Your task to perform on an android device: Find coffee shops on Maps Image 0: 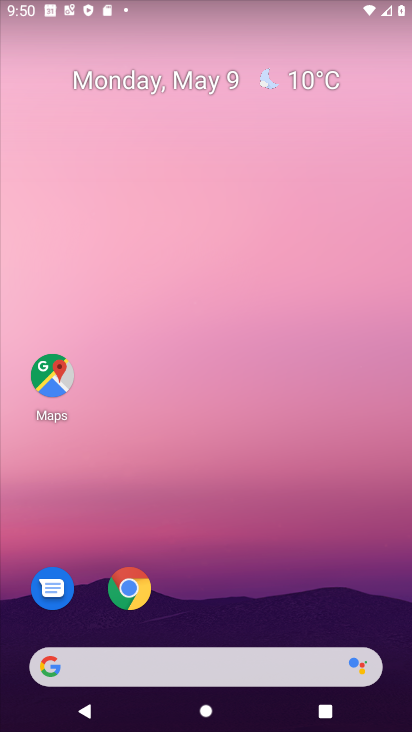
Step 0: press home button
Your task to perform on an android device: Find coffee shops on Maps Image 1: 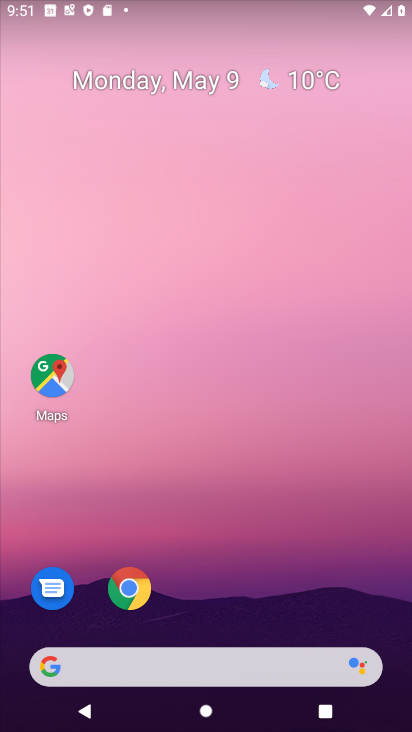
Step 1: drag from (195, 678) to (335, 153)
Your task to perform on an android device: Find coffee shops on Maps Image 2: 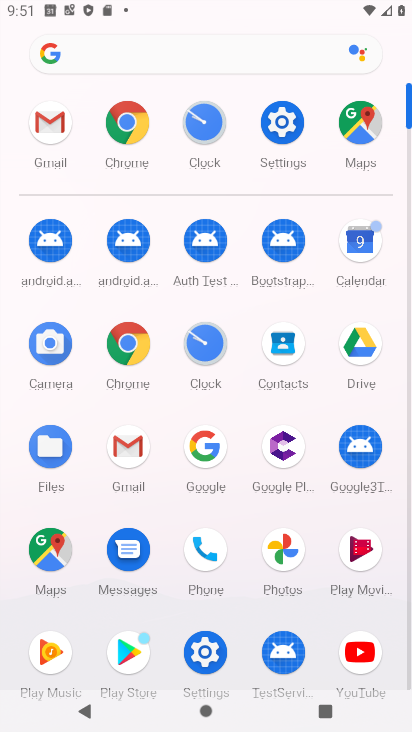
Step 2: click (369, 136)
Your task to perform on an android device: Find coffee shops on Maps Image 3: 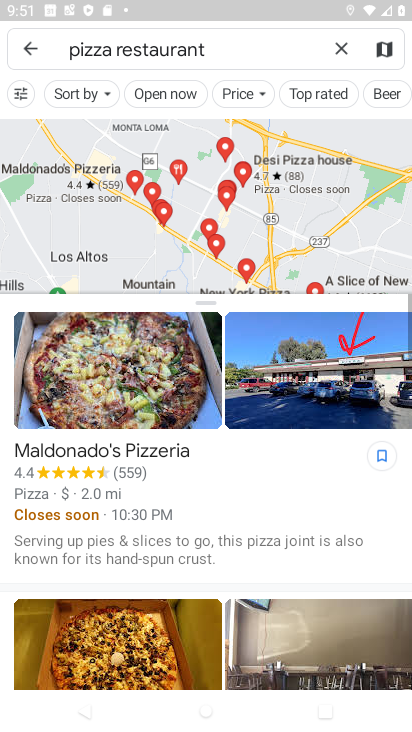
Step 3: click (337, 45)
Your task to perform on an android device: Find coffee shops on Maps Image 4: 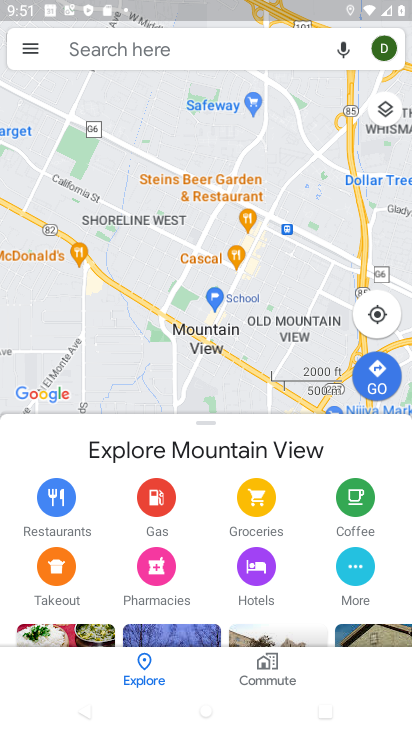
Step 4: click (245, 47)
Your task to perform on an android device: Find coffee shops on Maps Image 5: 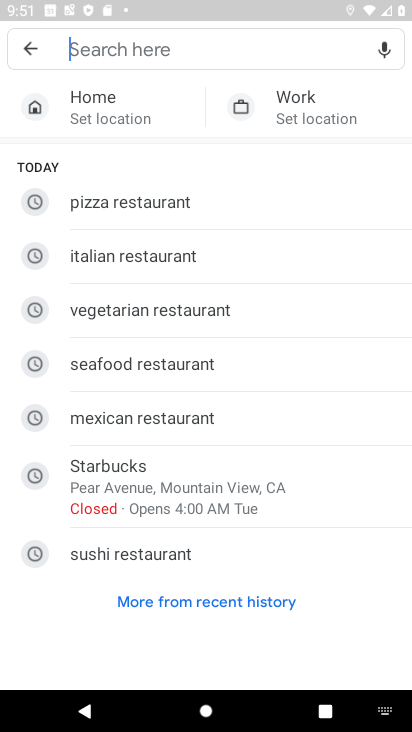
Step 5: type "coffee"
Your task to perform on an android device: Find coffee shops on Maps Image 6: 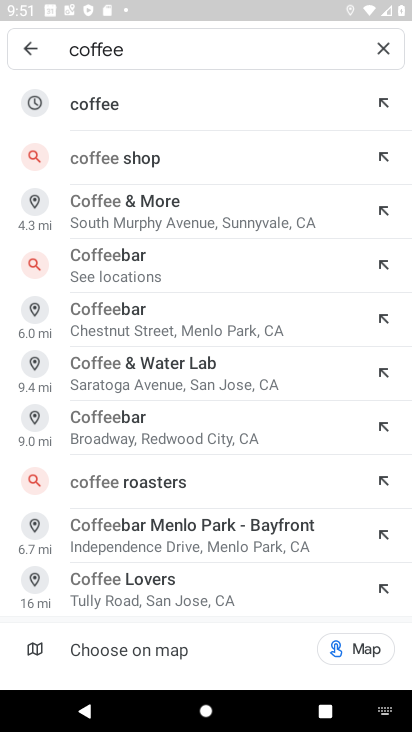
Step 6: click (251, 104)
Your task to perform on an android device: Find coffee shops on Maps Image 7: 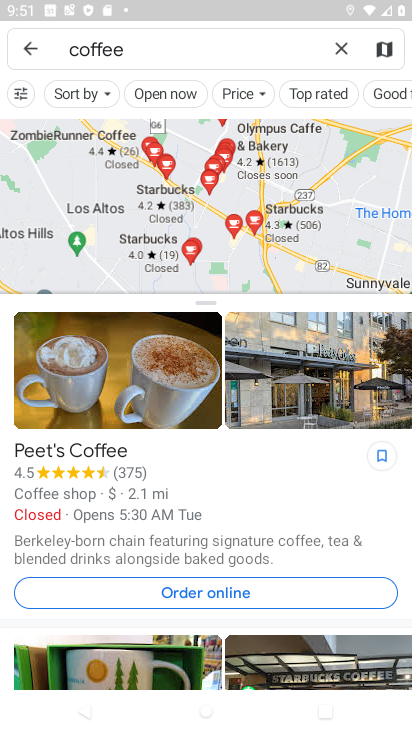
Step 7: task complete